Your task to perform on an android device: toggle javascript in the chrome app Image 0: 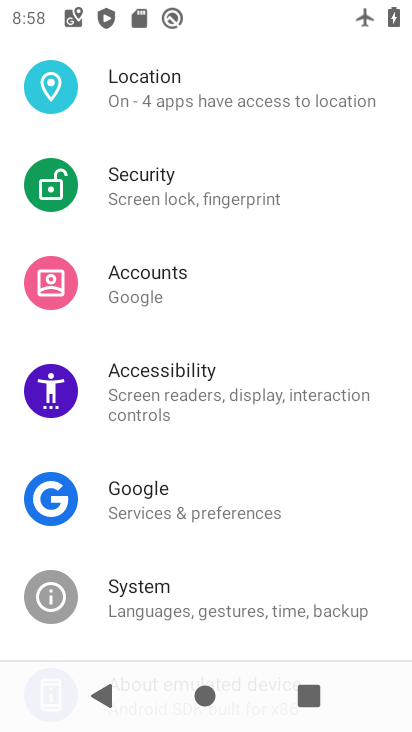
Step 0: press home button
Your task to perform on an android device: toggle javascript in the chrome app Image 1: 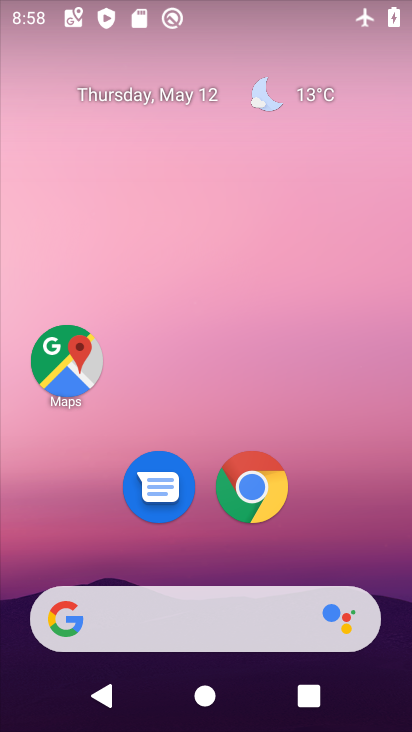
Step 1: click (268, 497)
Your task to perform on an android device: toggle javascript in the chrome app Image 2: 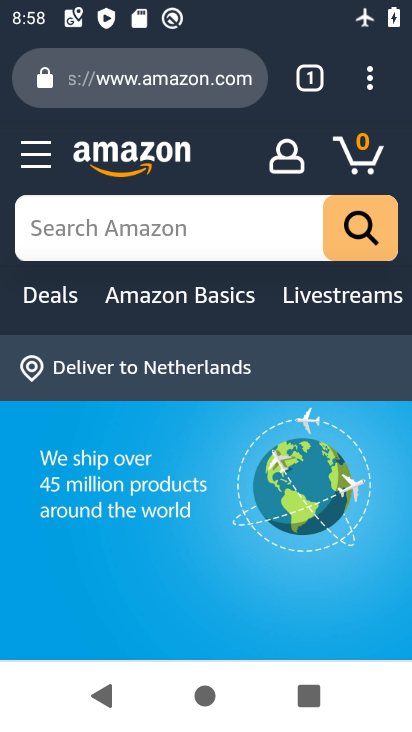
Step 2: click (367, 86)
Your task to perform on an android device: toggle javascript in the chrome app Image 3: 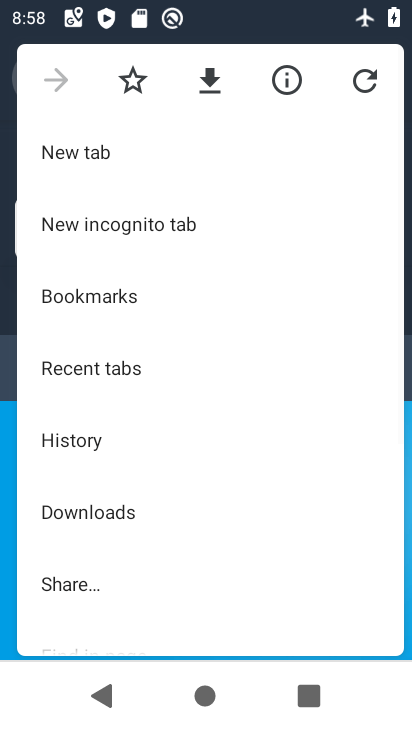
Step 3: drag from (146, 527) to (141, 167)
Your task to perform on an android device: toggle javascript in the chrome app Image 4: 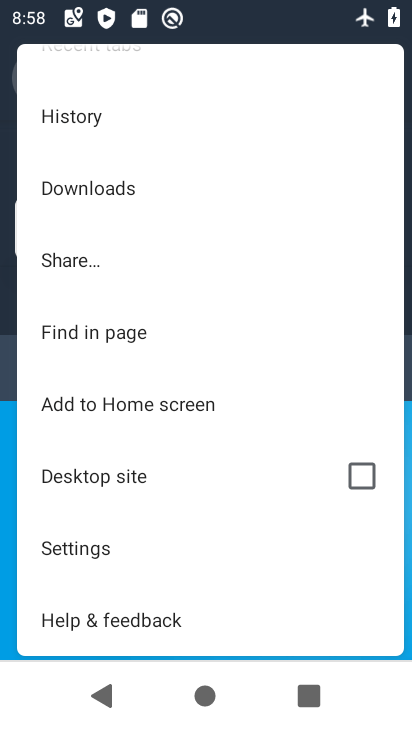
Step 4: click (80, 546)
Your task to perform on an android device: toggle javascript in the chrome app Image 5: 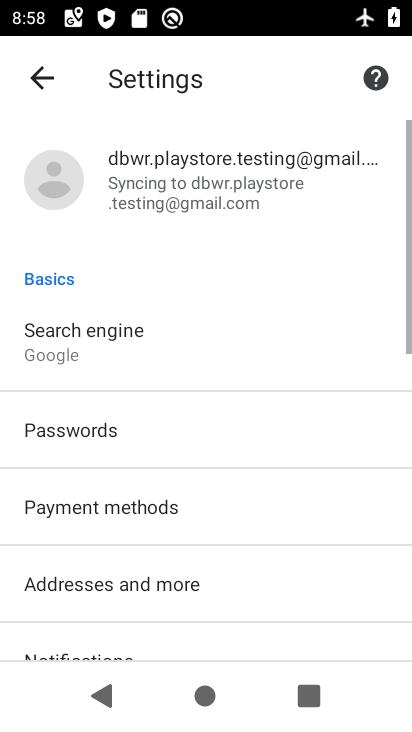
Step 5: drag from (163, 541) to (167, 134)
Your task to perform on an android device: toggle javascript in the chrome app Image 6: 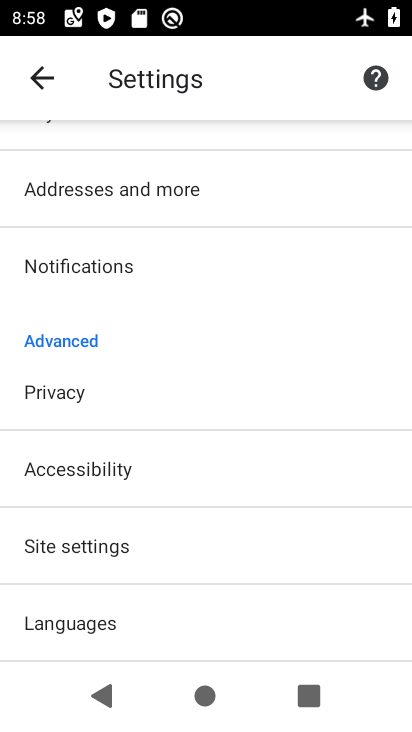
Step 6: click (102, 552)
Your task to perform on an android device: toggle javascript in the chrome app Image 7: 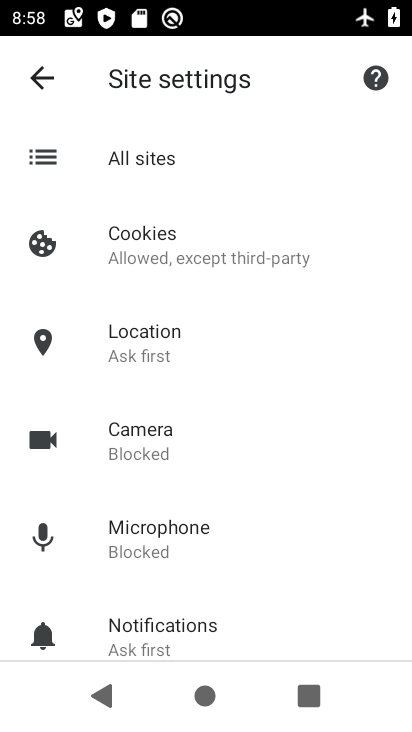
Step 7: drag from (227, 527) to (226, 264)
Your task to perform on an android device: toggle javascript in the chrome app Image 8: 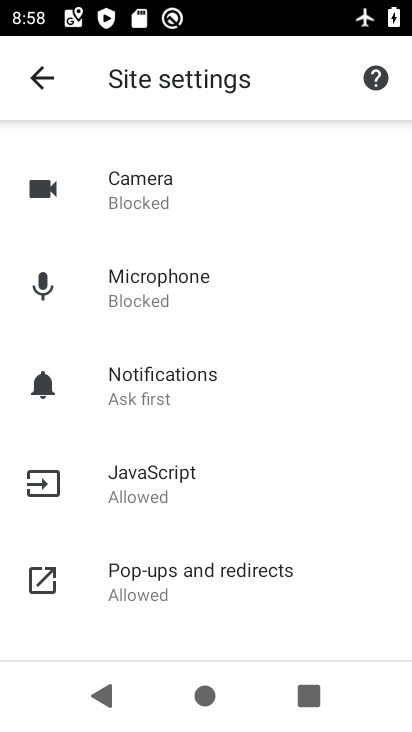
Step 8: click (133, 474)
Your task to perform on an android device: toggle javascript in the chrome app Image 9: 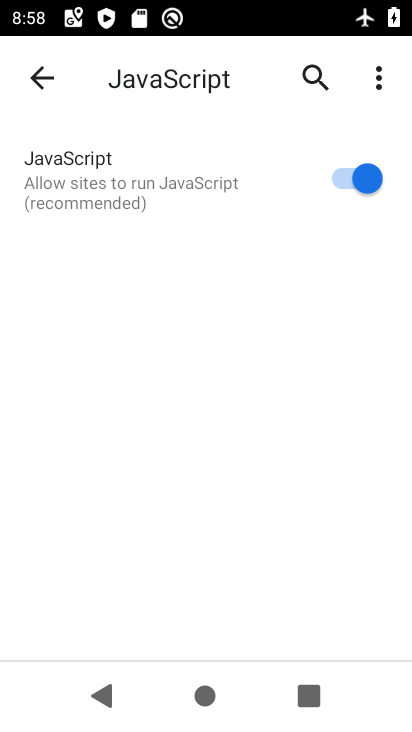
Step 9: click (366, 184)
Your task to perform on an android device: toggle javascript in the chrome app Image 10: 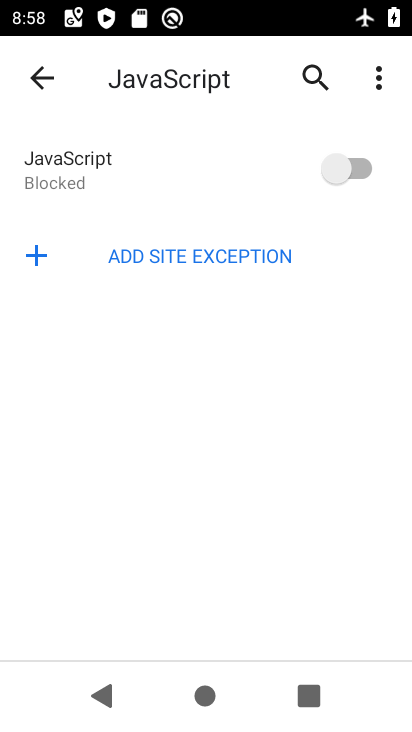
Step 10: task complete